Your task to perform on an android device: turn on showing notifications on the lock screen Image 0: 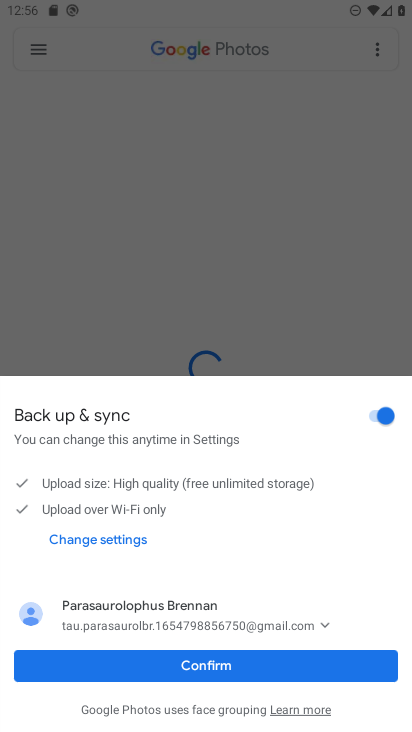
Step 0: press home button
Your task to perform on an android device: turn on showing notifications on the lock screen Image 1: 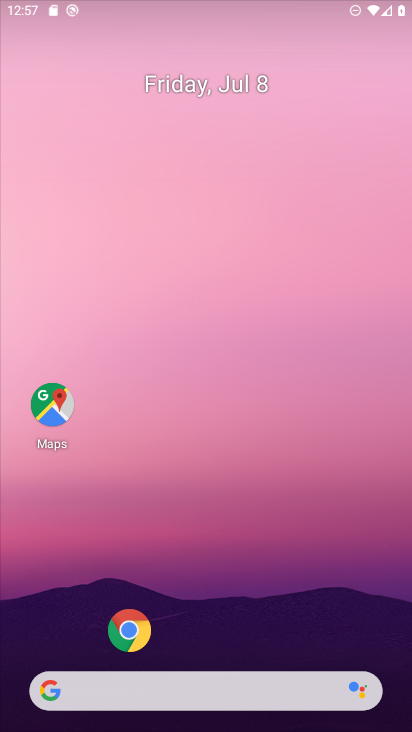
Step 1: drag from (325, 653) to (324, 1)
Your task to perform on an android device: turn on showing notifications on the lock screen Image 2: 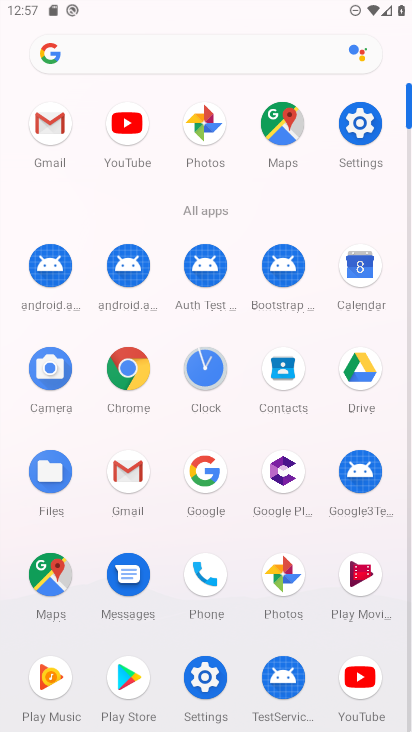
Step 2: click (358, 124)
Your task to perform on an android device: turn on showing notifications on the lock screen Image 3: 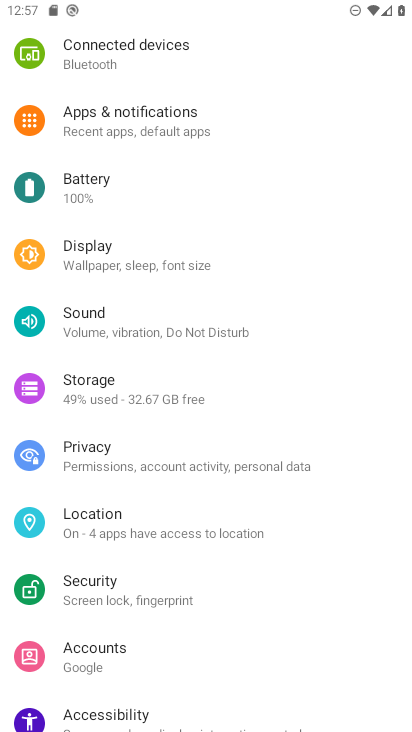
Step 3: click (119, 134)
Your task to perform on an android device: turn on showing notifications on the lock screen Image 4: 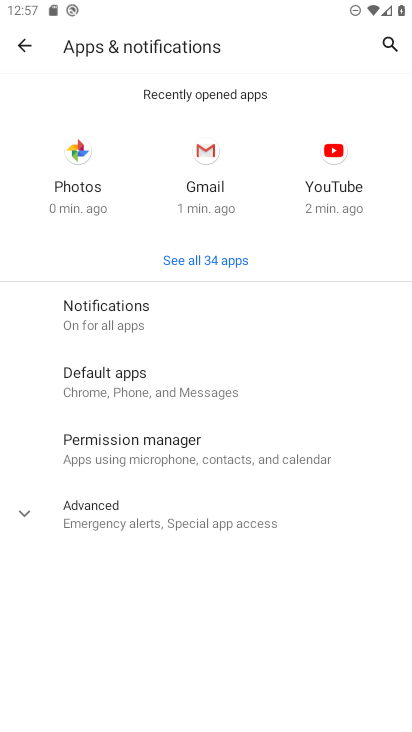
Step 4: click (150, 321)
Your task to perform on an android device: turn on showing notifications on the lock screen Image 5: 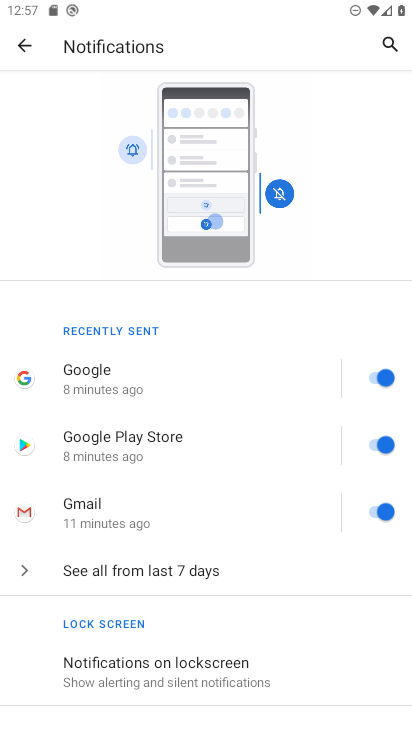
Step 5: click (191, 669)
Your task to perform on an android device: turn on showing notifications on the lock screen Image 6: 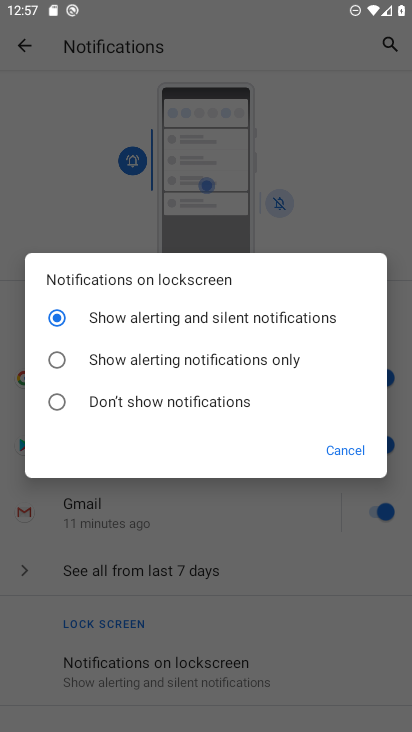
Step 6: task complete